Your task to perform on an android device: all mails in gmail Image 0: 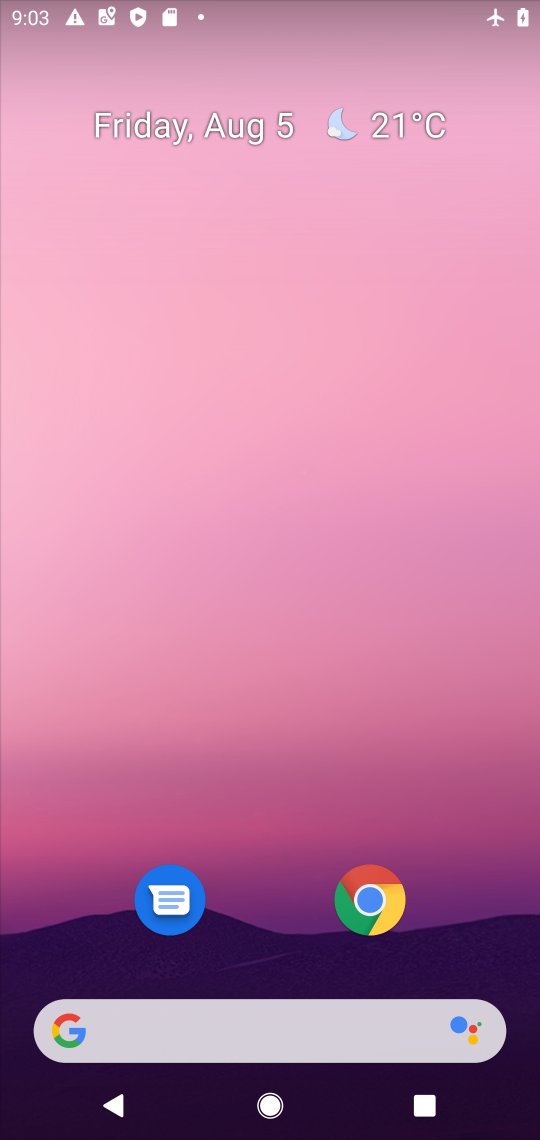
Step 0: drag from (295, 928) to (479, 2)
Your task to perform on an android device: all mails in gmail Image 1: 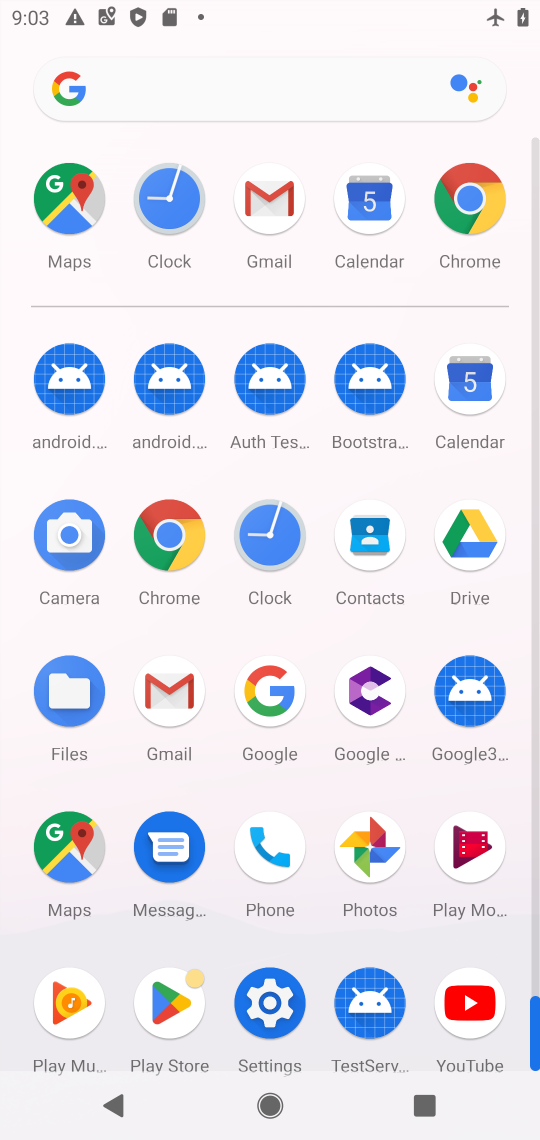
Step 1: click (151, 678)
Your task to perform on an android device: all mails in gmail Image 2: 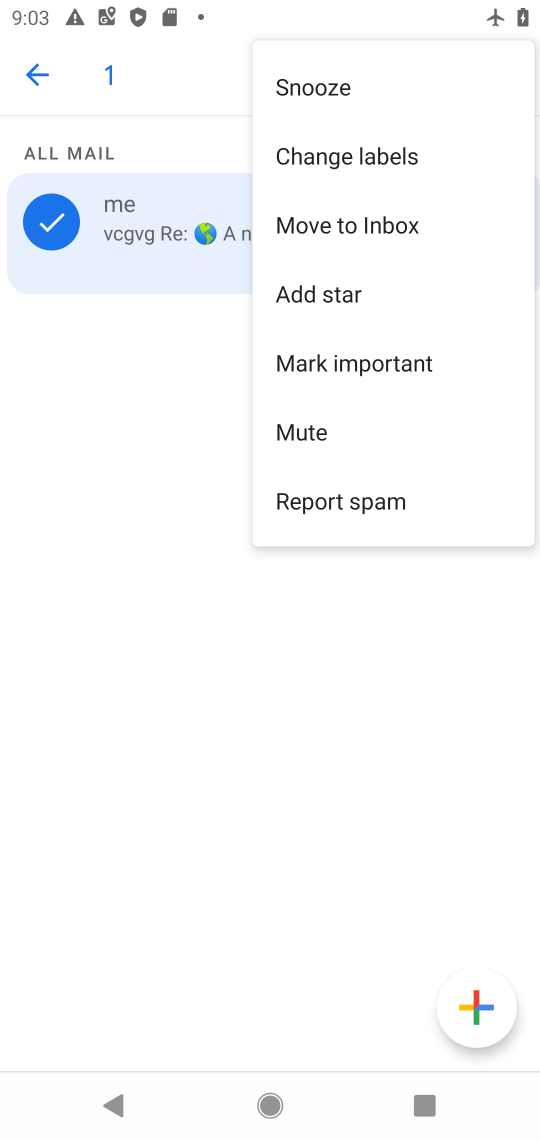
Step 2: click (35, 73)
Your task to perform on an android device: all mails in gmail Image 3: 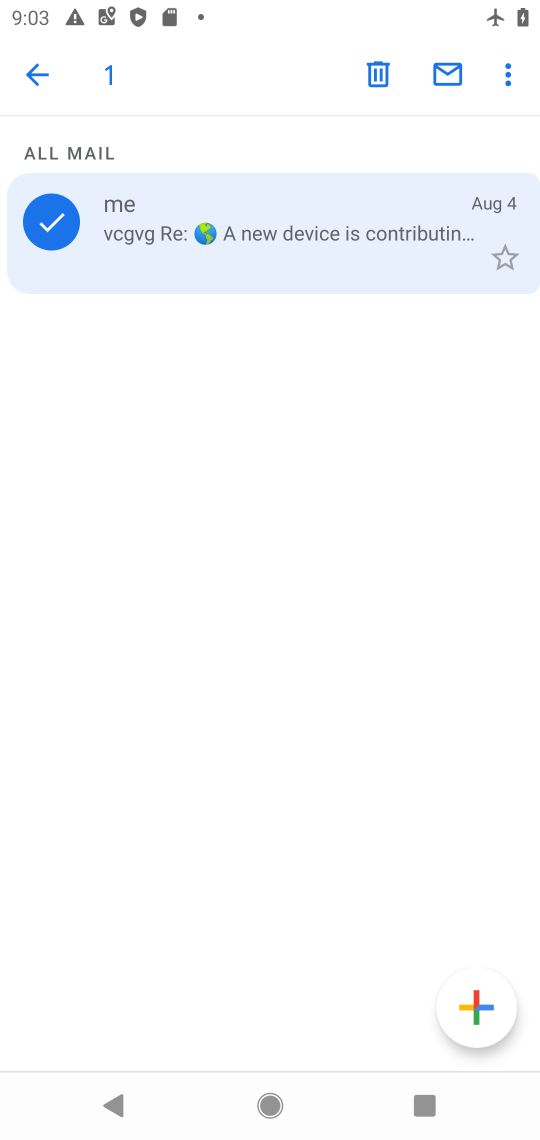
Step 3: click (35, 73)
Your task to perform on an android device: all mails in gmail Image 4: 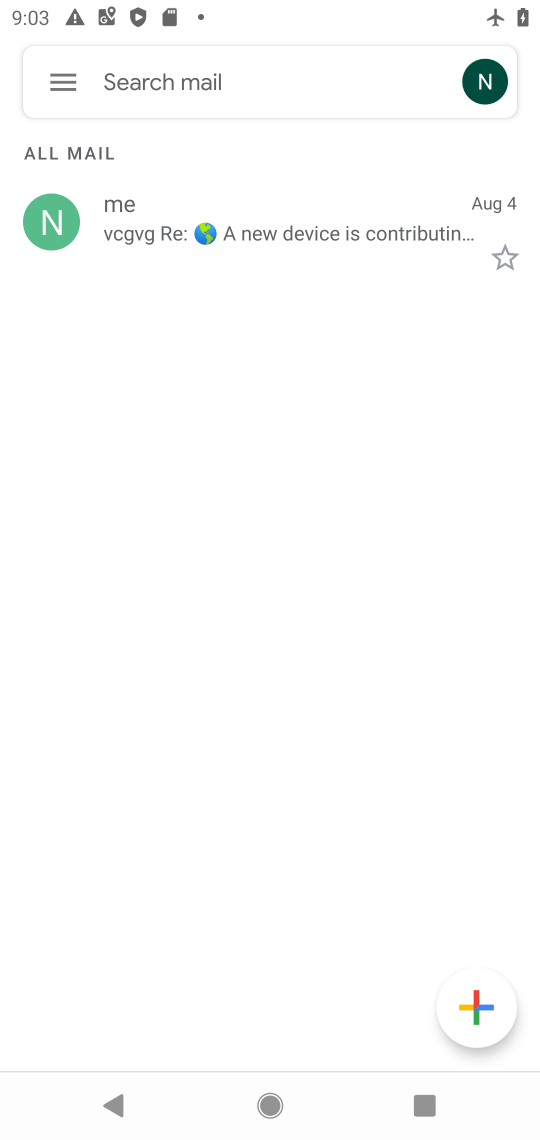
Step 4: click (52, 84)
Your task to perform on an android device: all mails in gmail Image 5: 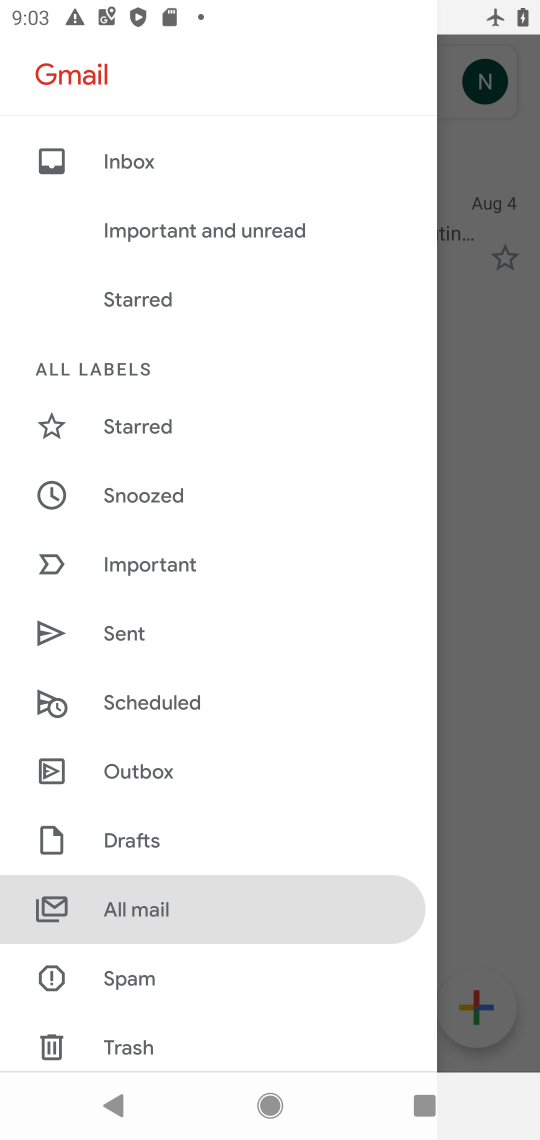
Step 5: click (128, 897)
Your task to perform on an android device: all mails in gmail Image 6: 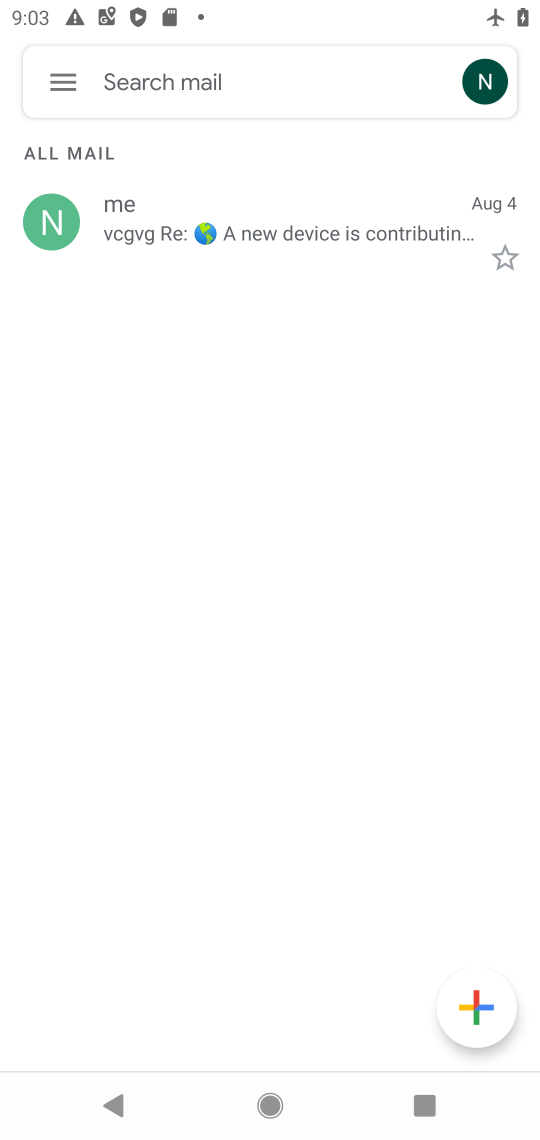
Step 6: task complete